Your task to perform on an android device: Open calendar and show me the second week of next month Image 0: 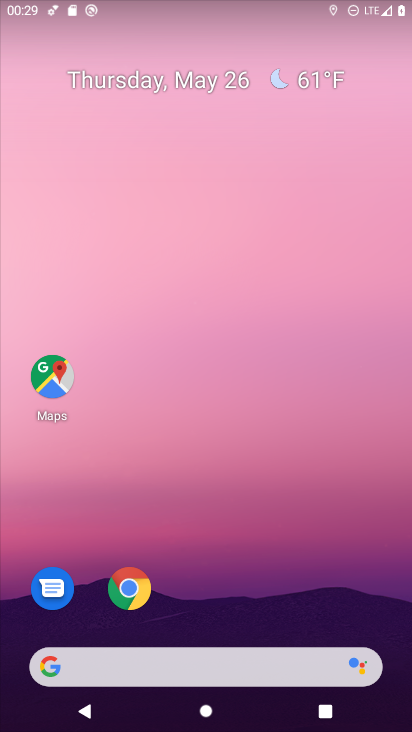
Step 0: drag from (254, 546) to (161, 244)
Your task to perform on an android device: Open calendar and show me the second week of next month Image 1: 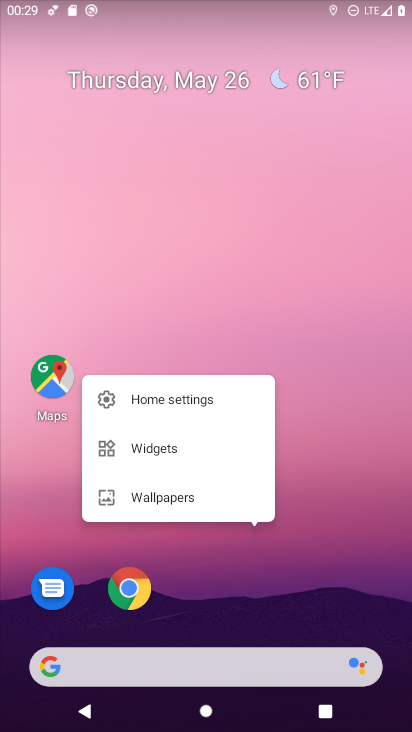
Step 1: click (292, 423)
Your task to perform on an android device: Open calendar and show me the second week of next month Image 2: 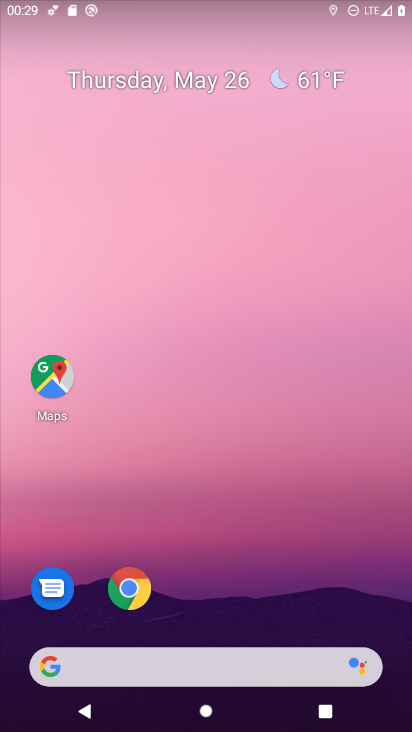
Step 2: drag from (292, 423) to (184, 66)
Your task to perform on an android device: Open calendar and show me the second week of next month Image 3: 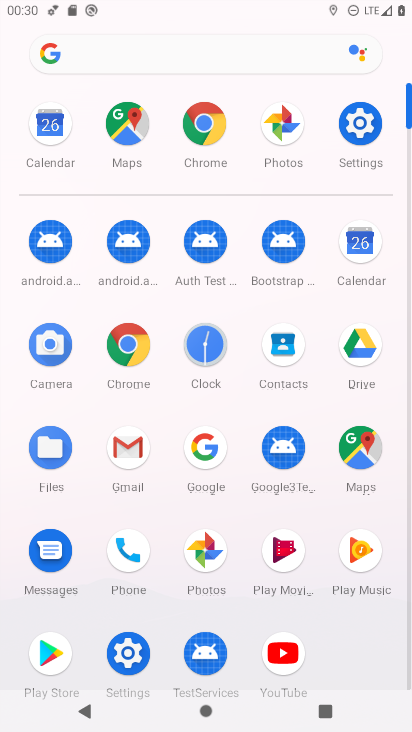
Step 3: click (367, 254)
Your task to perform on an android device: Open calendar and show me the second week of next month Image 4: 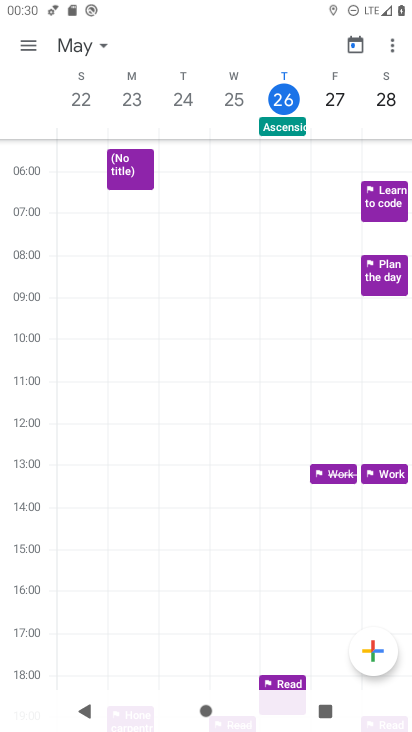
Step 4: click (107, 43)
Your task to perform on an android device: Open calendar and show me the second week of next month Image 5: 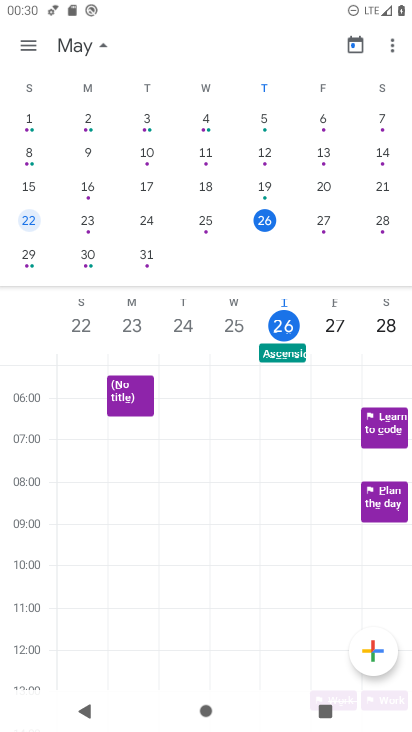
Step 5: drag from (377, 155) to (19, 131)
Your task to perform on an android device: Open calendar and show me the second week of next month Image 6: 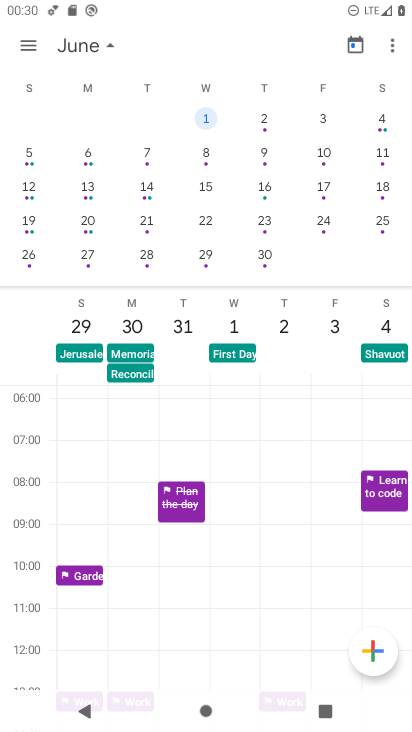
Step 6: click (152, 155)
Your task to perform on an android device: Open calendar and show me the second week of next month Image 7: 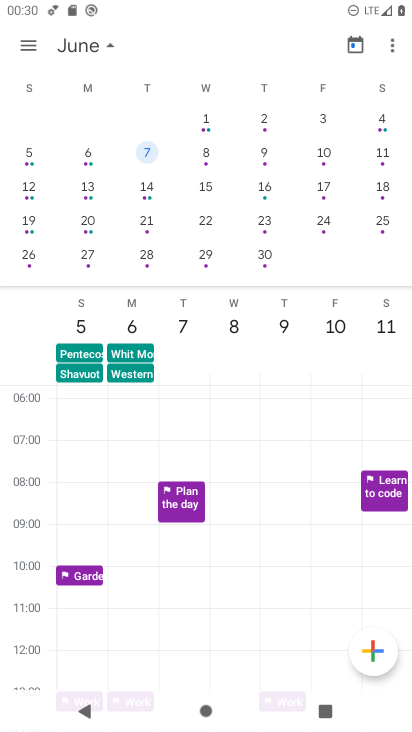
Step 7: task complete